Your task to perform on an android device: toggle priority inbox in the gmail app Image 0: 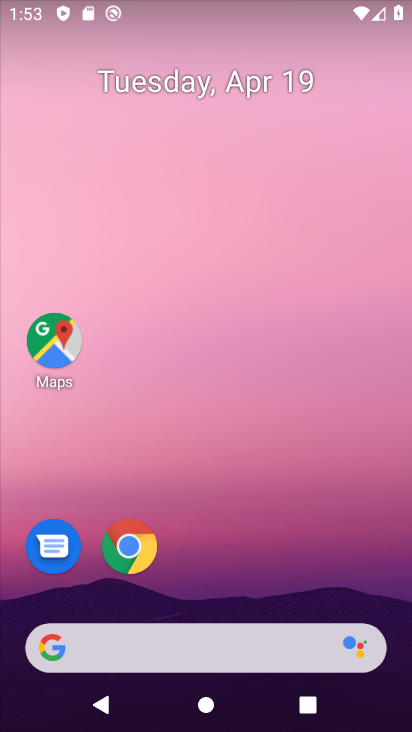
Step 0: drag from (209, 630) to (188, 156)
Your task to perform on an android device: toggle priority inbox in the gmail app Image 1: 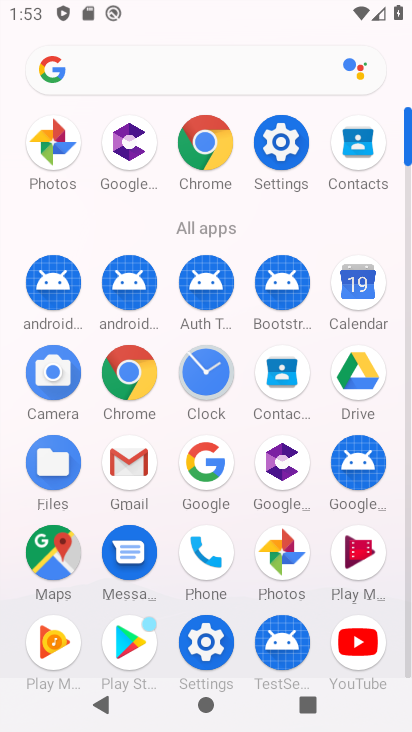
Step 1: click (139, 480)
Your task to perform on an android device: toggle priority inbox in the gmail app Image 2: 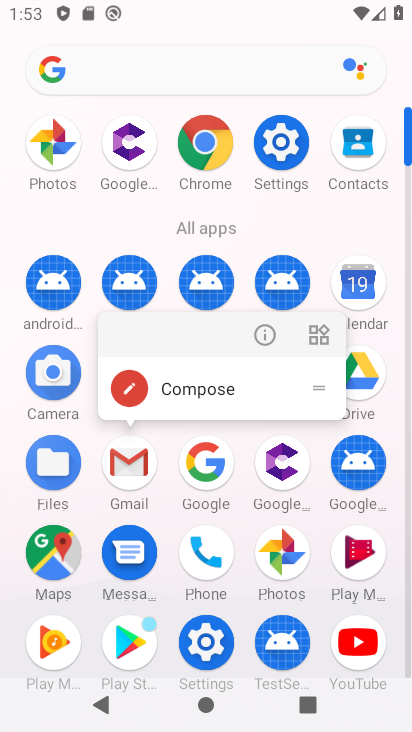
Step 2: click (136, 477)
Your task to perform on an android device: toggle priority inbox in the gmail app Image 3: 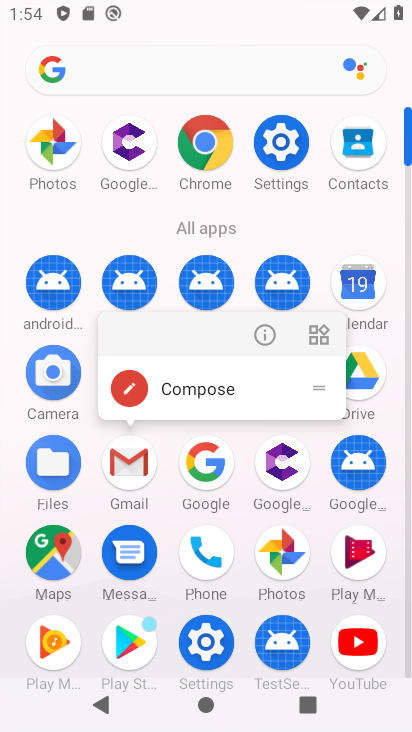
Step 3: click (136, 477)
Your task to perform on an android device: toggle priority inbox in the gmail app Image 4: 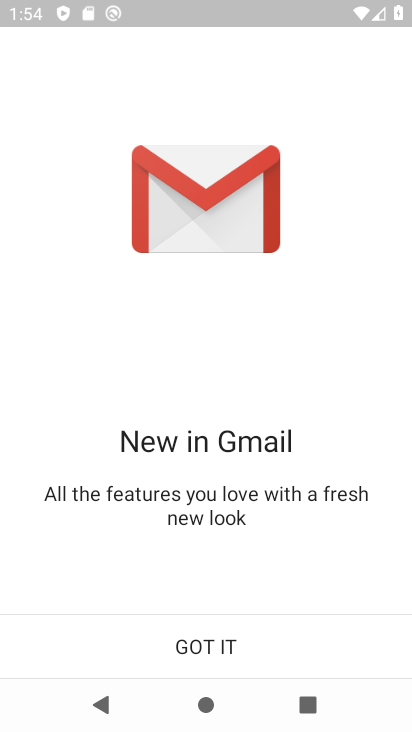
Step 4: click (199, 632)
Your task to perform on an android device: toggle priority inbox in the gmail app Image 5: 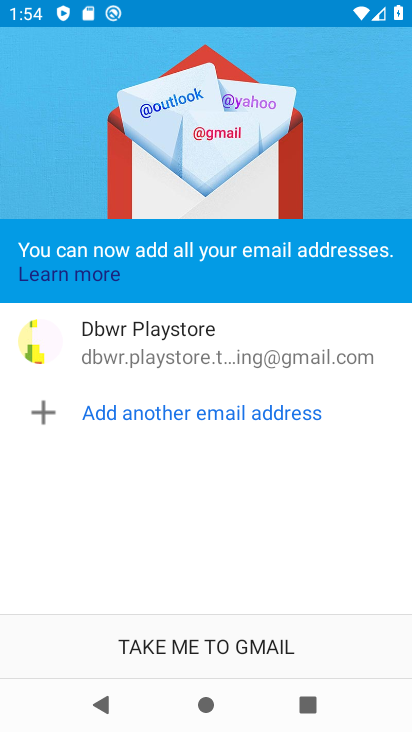
Step 5: click (246, 643)
Your task to perform on an android device: toggle priority inbox in the gmail app Image 6: 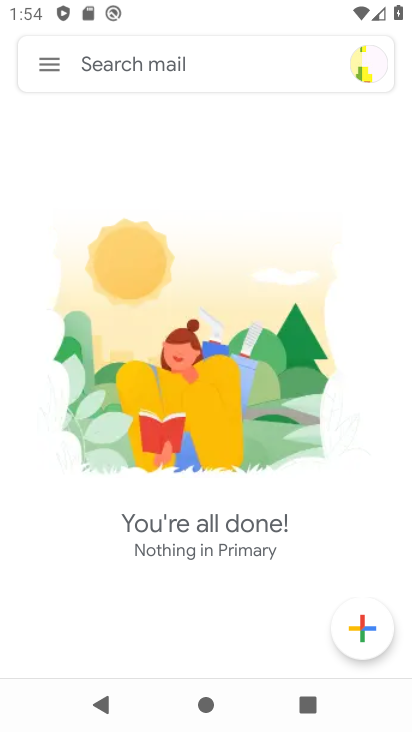
Step 6: click (49, 69)
Your task to perform on an android device: toggle priority inbox in the gmail app Image 7: 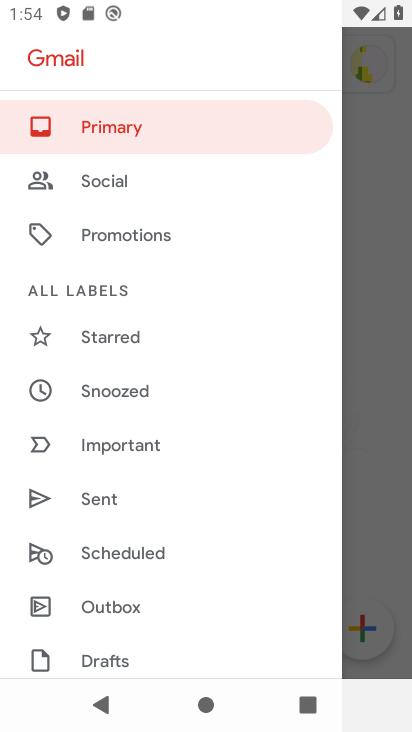
Step 7: drag from (80, 573) to (122, 194)
Your task to perform on an android device: toggle priority inbox in the gmail app Image 8: 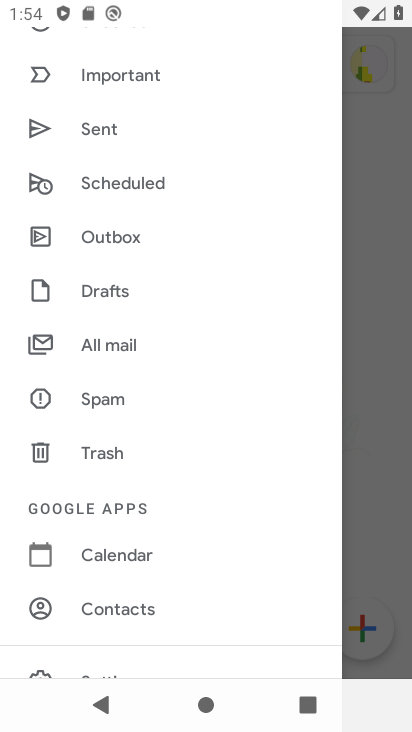
Step 8: drag from (162, 502) to (132, 116)
Your task to perform on an android device: toggle priority inbox in the gmail app Image 9: 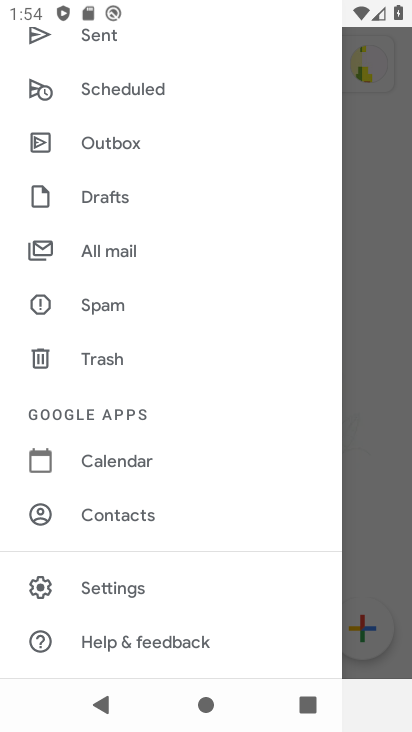
Step 9: click (124, 583)
Your task to perform on an android device: toggle priority inbox in the gmail app Image 10: 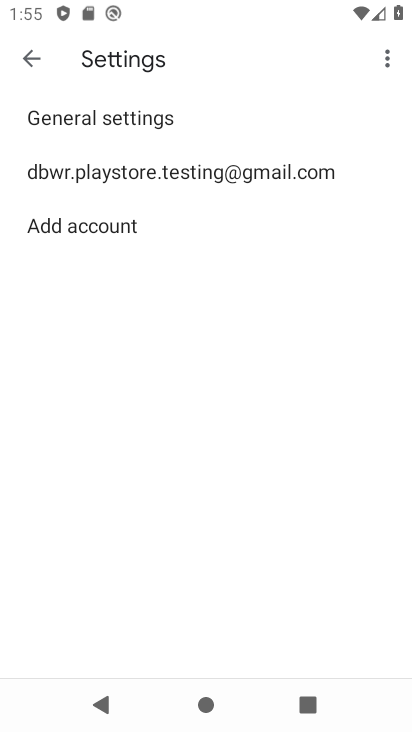
Step 10: click (150, 179)
Your task to perform on an android device: toggle priority inbox in the gmail app Image 11: 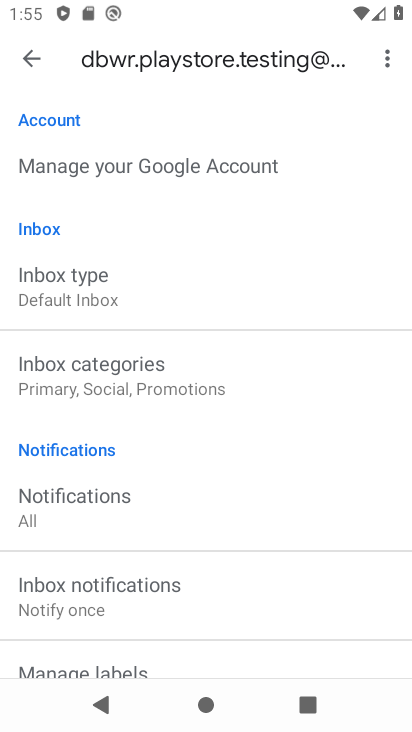
Step 11: click (93, 297)
Your task to perform on an android device: toggle priority inbox in the gmail app Image 12: 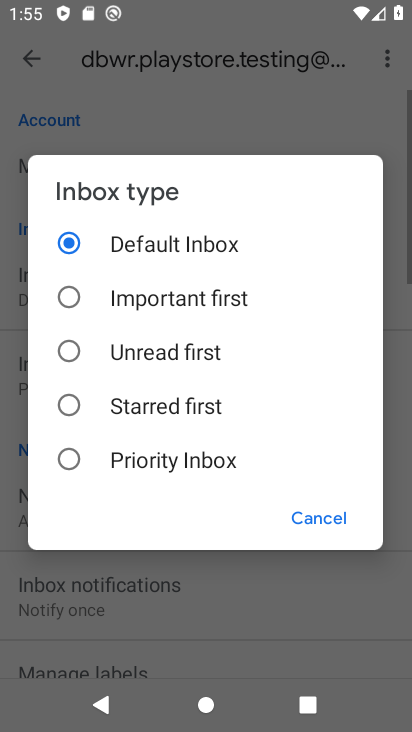
Step 12: click (112, 453)
Your task to perform on an android device: toggle priority inbox in the gmail app Image 13: 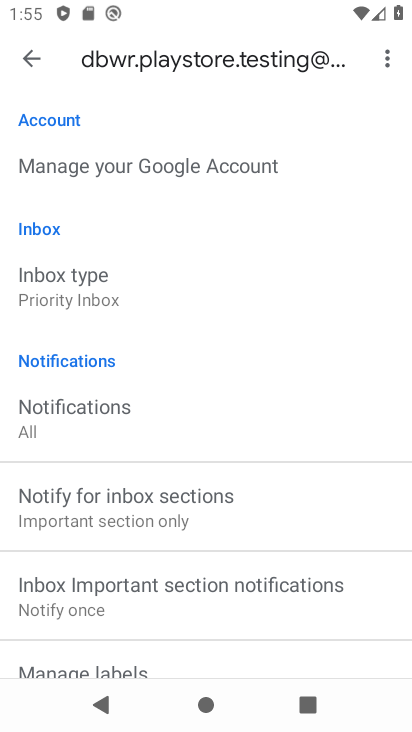
Step 13: task complete